Your task to perform on an android device: Open Android settings Image 0: 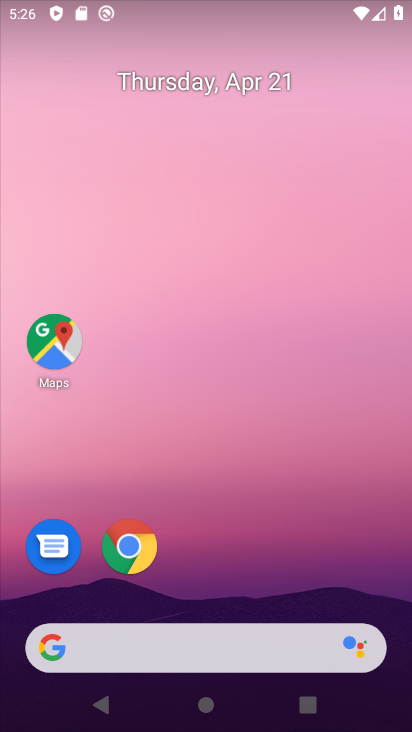
Step 0: drag from (229, 570) to (285, 82)
Your task to perform on an android device: Open Android settings Image 1: 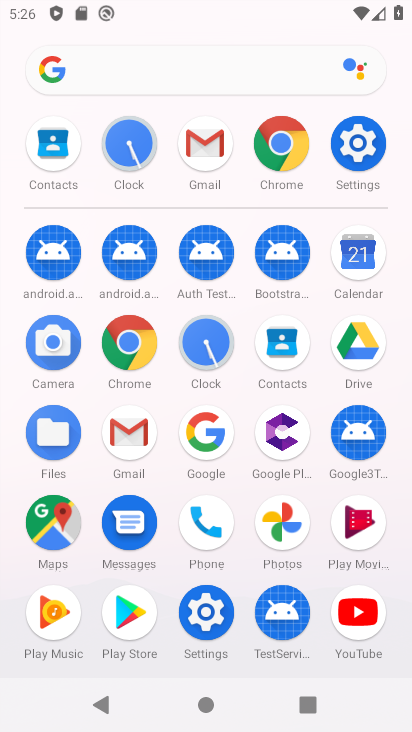
Step 1: click (362, 135)
Your task to perform on an android device: Open Android settings Image 2: 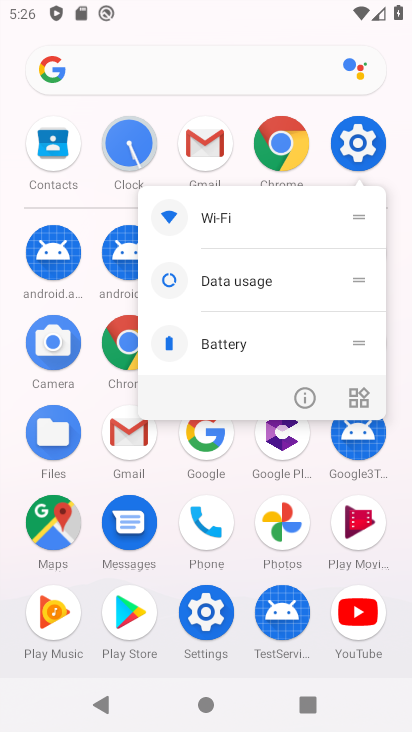
Step 2: click (212, 144)
Your task to perform on an android device: Open Android settings Image 3: 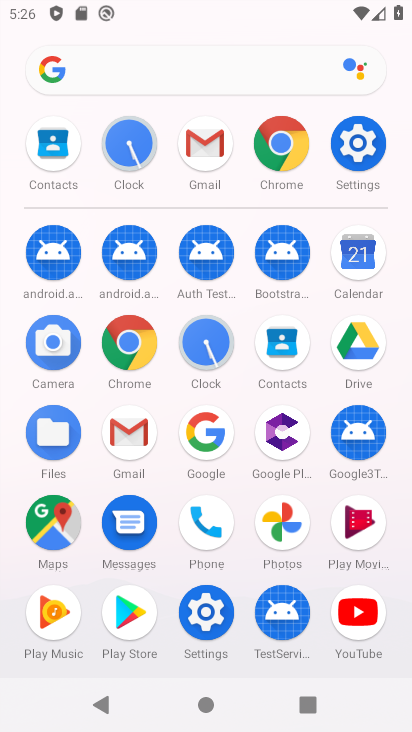
Step 3: click (209, 143)
Your task to perform on an android device: Open Android settings Image 4: 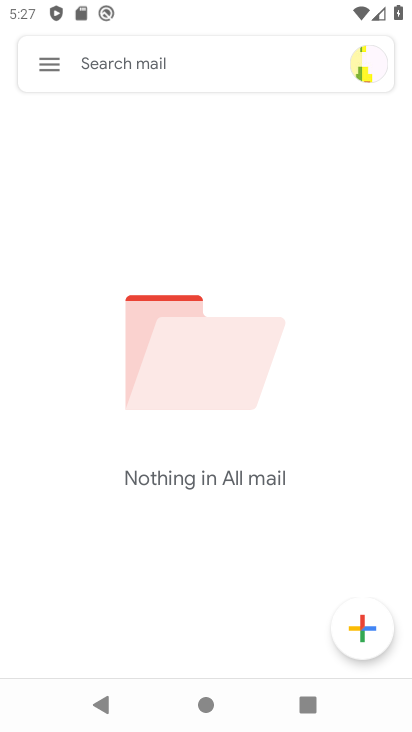
Step 4: press home button
Your task to perform on an android device: Open Android settings Image 5: 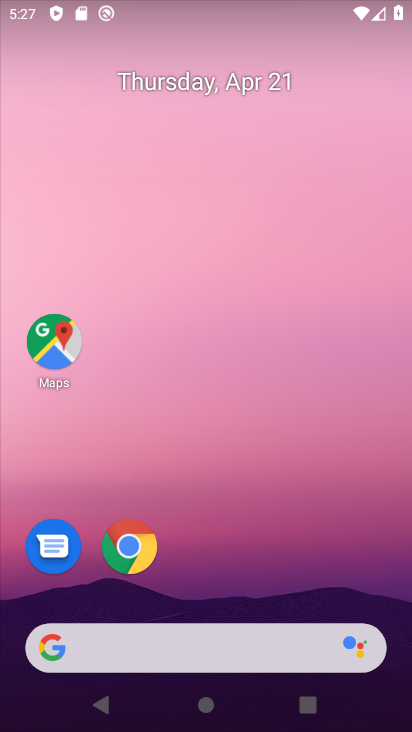
Step 5: drag from (223, 557) to (310, 36)
Your task to perform on an android device: Open Android settings Image 6: 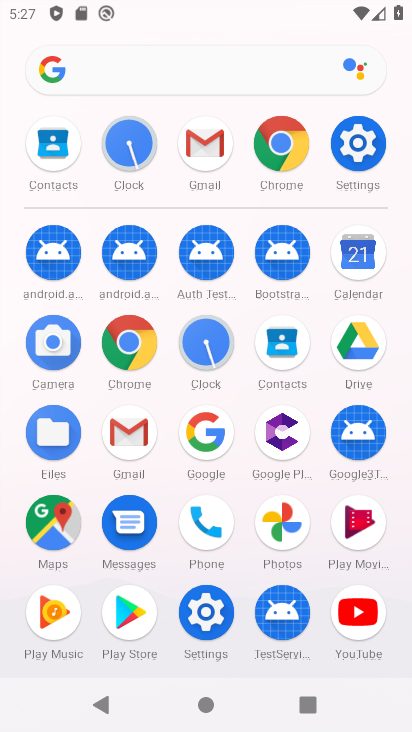
Step 6: click (358, 146)
Your task to perform on an android device: Open Android settings Image 7: 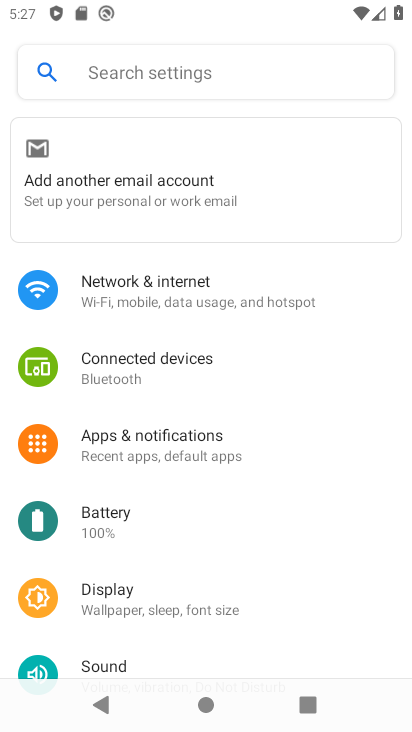
Step 7: drag from (214, 579) to (246, 66)
Your task to perform on an android device: Open Android settings Image 8: 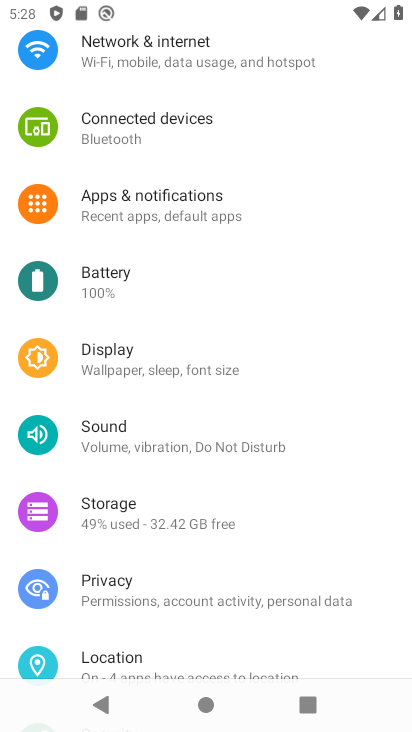
Step 8: drag from (237, 638) to (251, 8)
Your task to perform on an android device: Open Android settings Image 9: 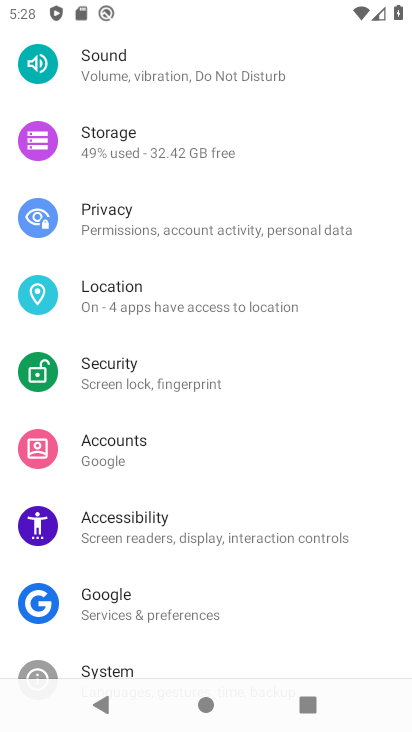
Step 9: drag from (218, 628) to (221, 160)
Your task to perform on an android device: Open Android settings Image 10: 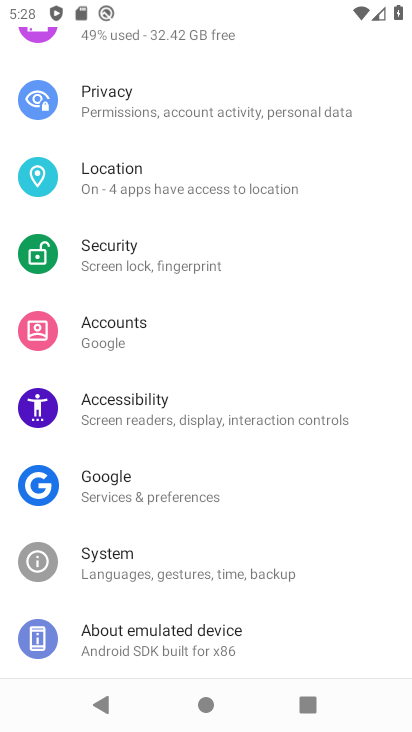
Step 10: click (183, 654)
Your task to perform on an android device: Open Android settings Image 11: 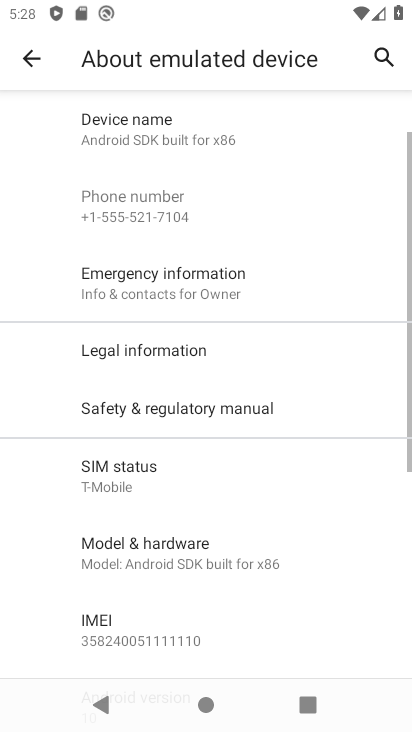
Step 11: task complete